Your task to perform on an android device: Go to settings Image 0: 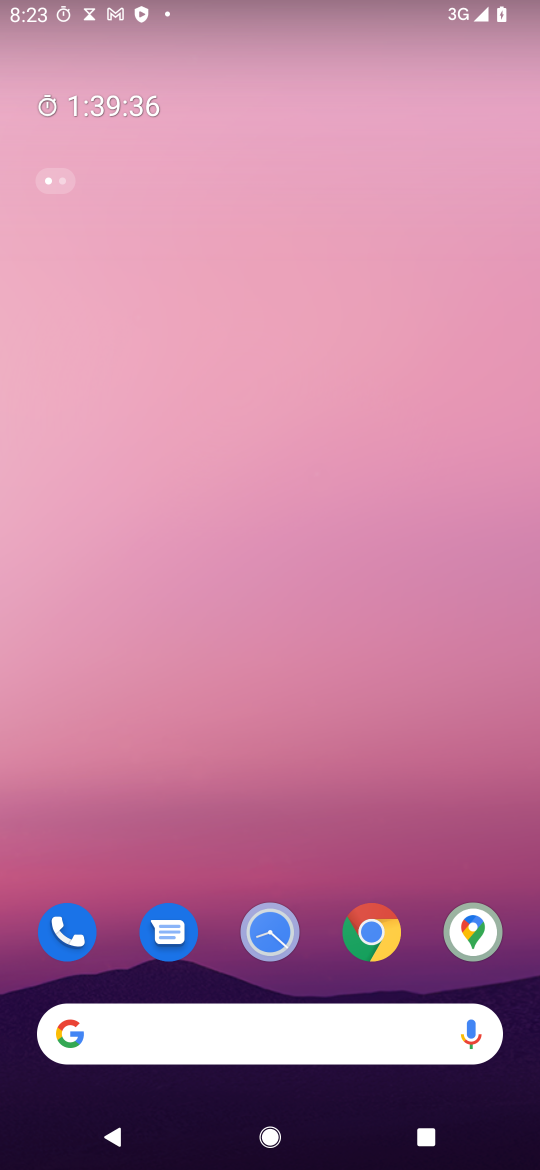
Step 0: drag from (324, 754) to (335, 7)
Your task to perform on an android device: Go to settings Image 1: 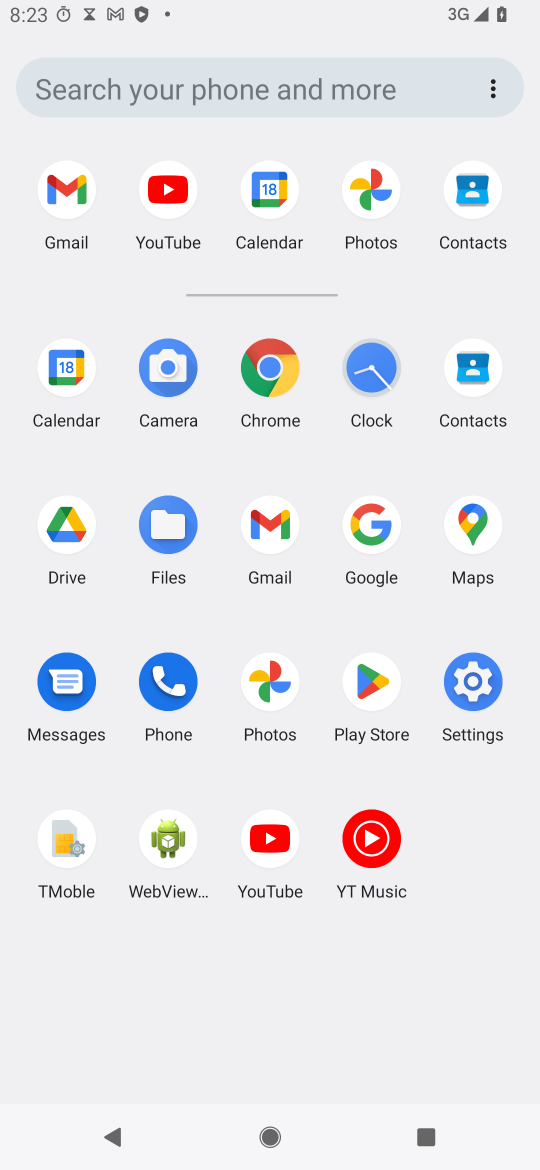
Step 1: click (464, 678)
Your task to perform on an android device: Go to settings Image 2: 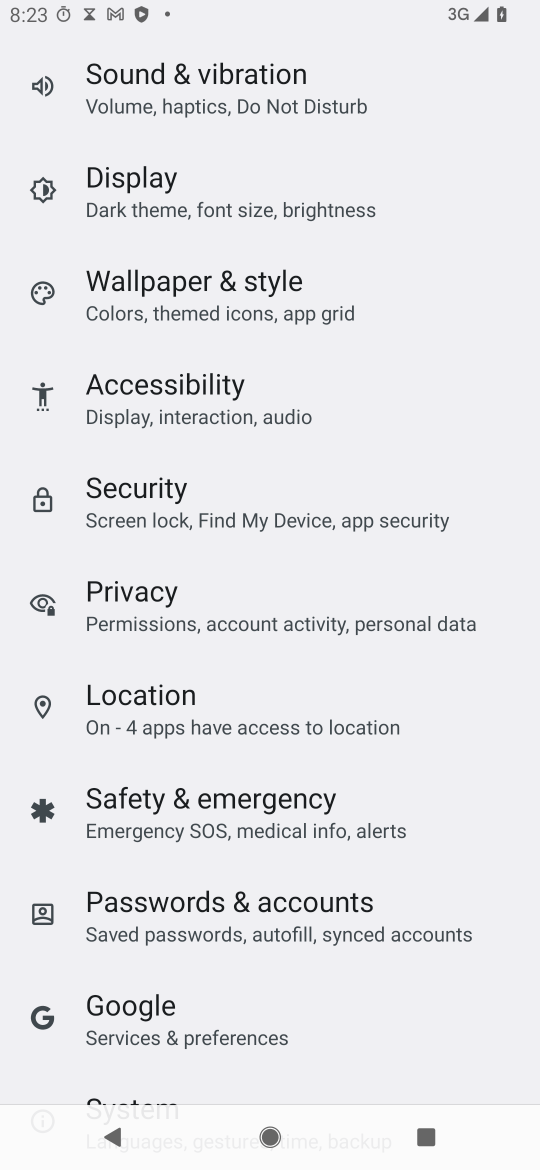
Step 2: task complete